Your task to perform on an android device: turn on notifications settings in the gmail app Image 0: 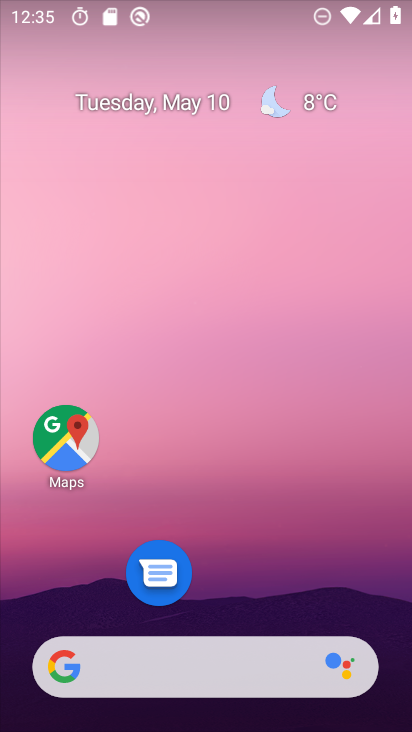
Step 0: drag from (230, 609) to (253, 65)
Your task to perform on an android device: turn on notifications settings in the gmail app Image 1: 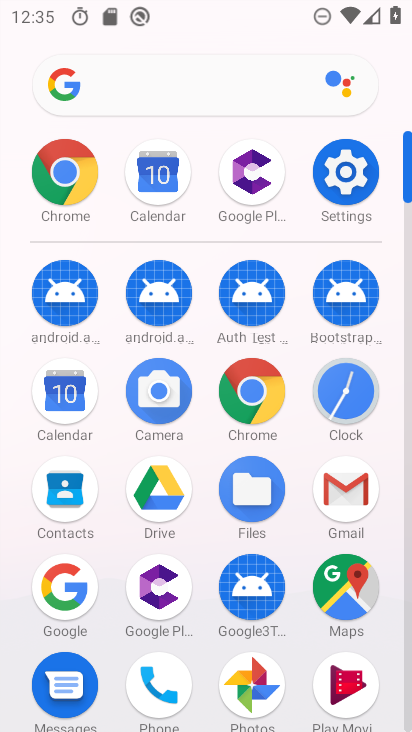
Step 1: click (328, 484)
Your task to perform on an android device: turn on notifications settings in the gmail app Image 2: 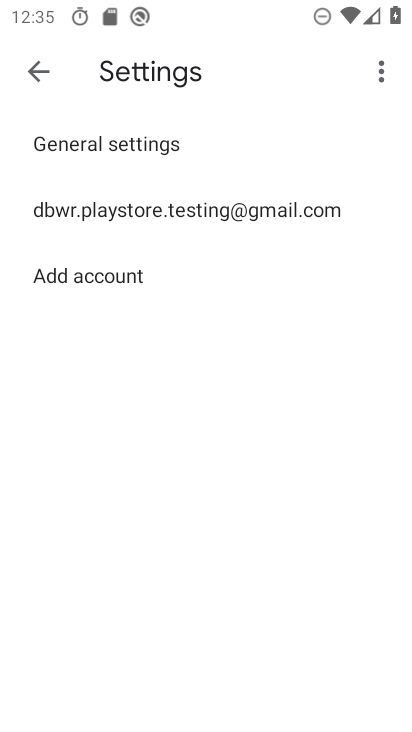
Step 2: click (154, 125)
Your task to perform on an android device: turn on notifications settings in the gmail app Image 3: 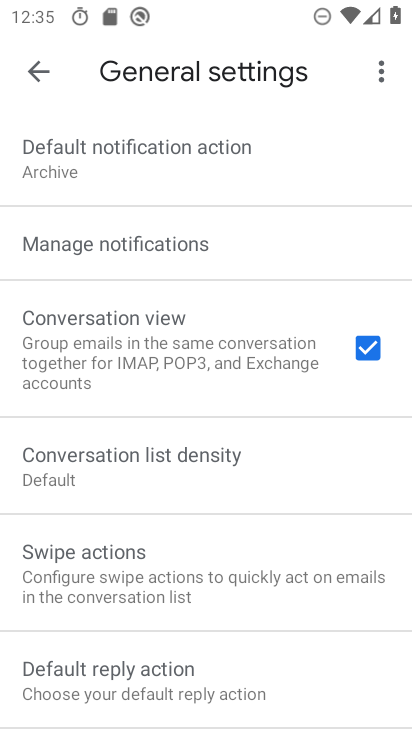
Step 3: click (164, 255)
Your task to perform on an android device: turn on notifications settings in the gmail app Image 4: 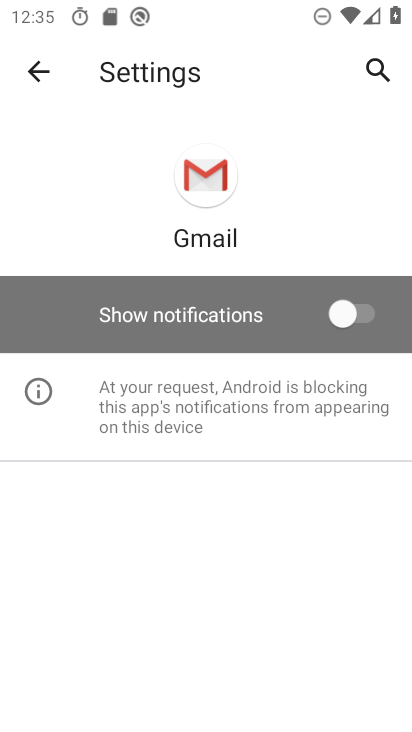
Step 4: click (365, 321)
Your task to perform on an android device: turn on notifications settings in the gmail app Image 5: 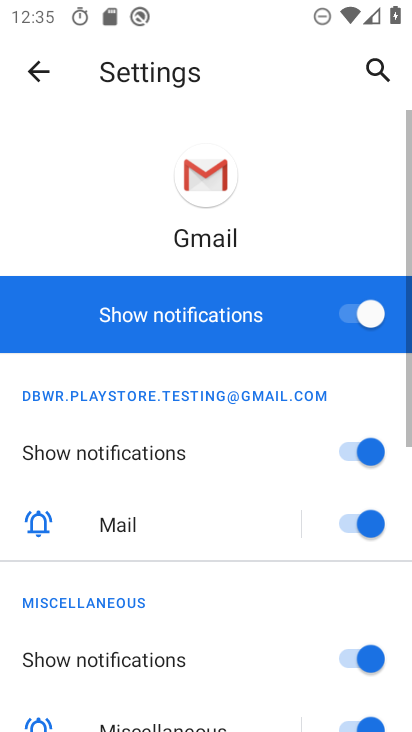
Step 5: task complete